Your task to perform on an android device: toggle notification dots Image 0: 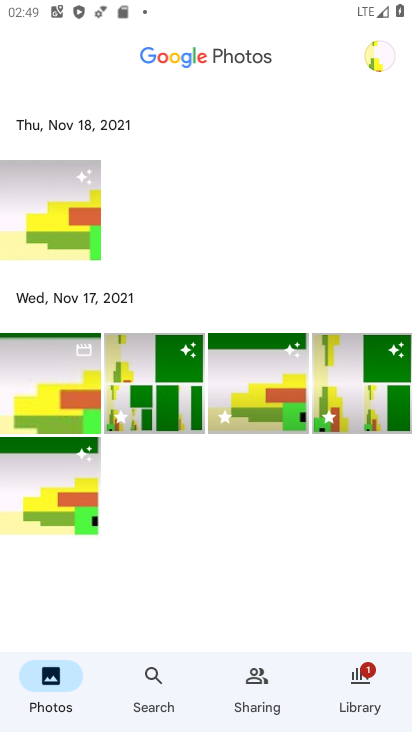
Step 0: press home button
Your task to perform on an android device: toggle notification dots Image 1: 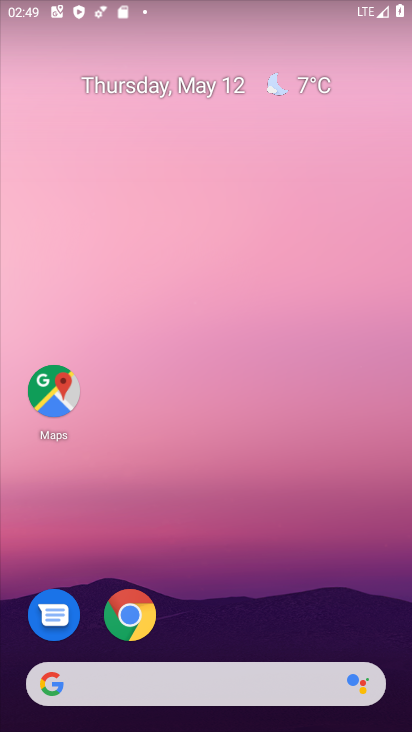
Step 1: drag from (255, 694) to (209, 397)
Your task to perform on an android device: toggle notification dots Image 2: 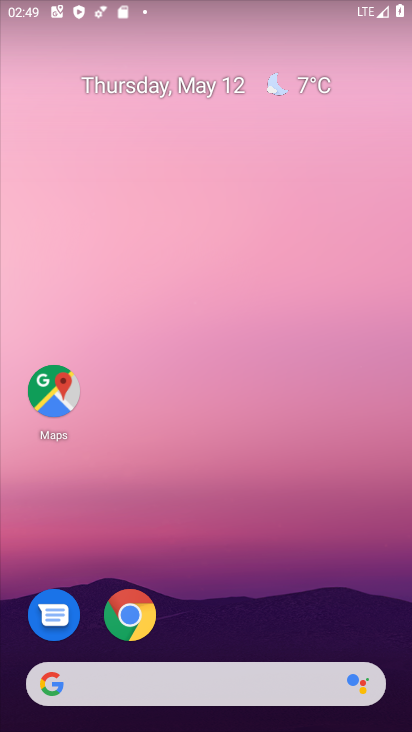
Step 2: drag from (224, 614) to (166, 239)
Your task to perform on an android device: toggle notification dots Image 3: 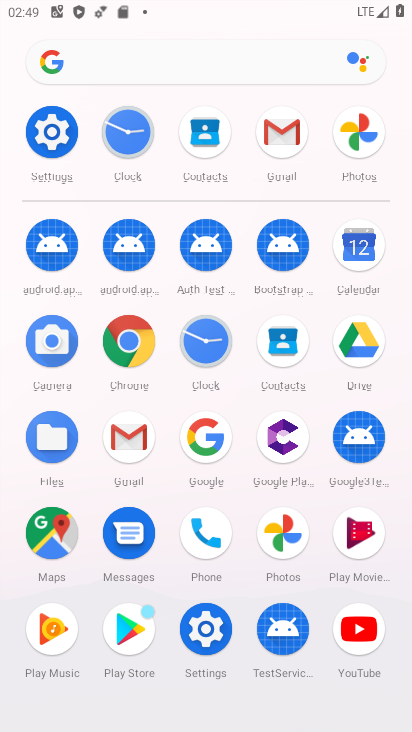
Step 3: click (45, 143)
Your task to perform on an android device: toggle notification dots Image 4: 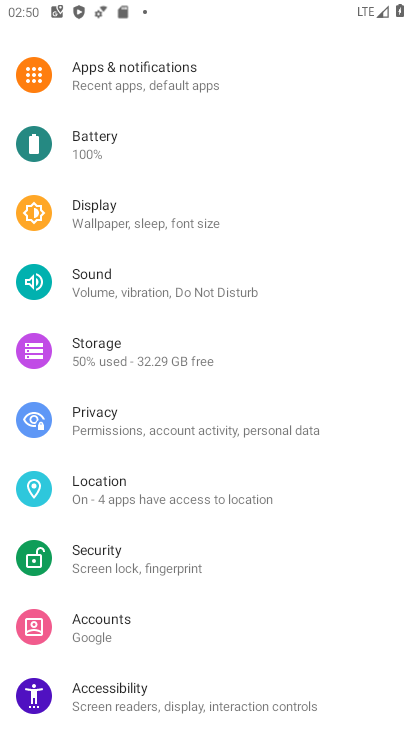
Step 4: click (92, 74)
Your task to perform on an android device: toggle notification dots Image 5: 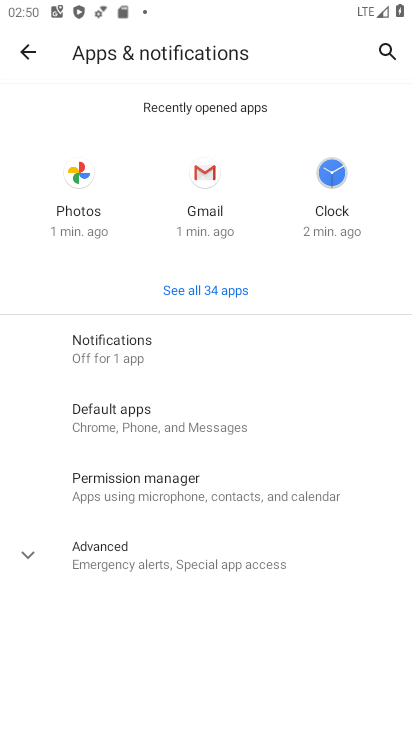
Step 5: click (138, 363)
Your task to perform on an android device: toggle notification dots Image 6: 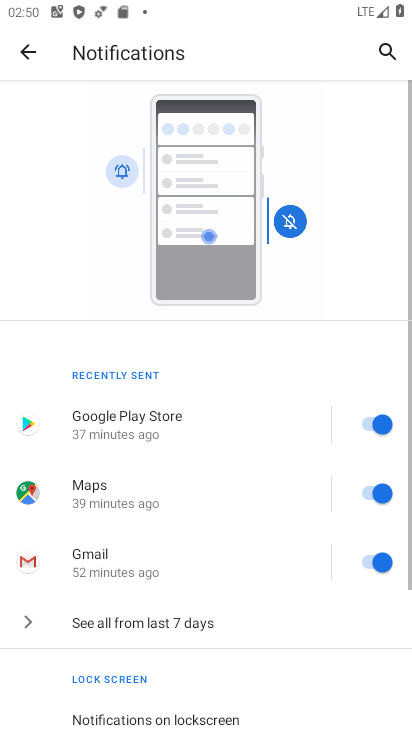
Step 6: drag from (140, 539) to (113, 124)
Your task to perform on an android device: toggle notification dots Image 7: 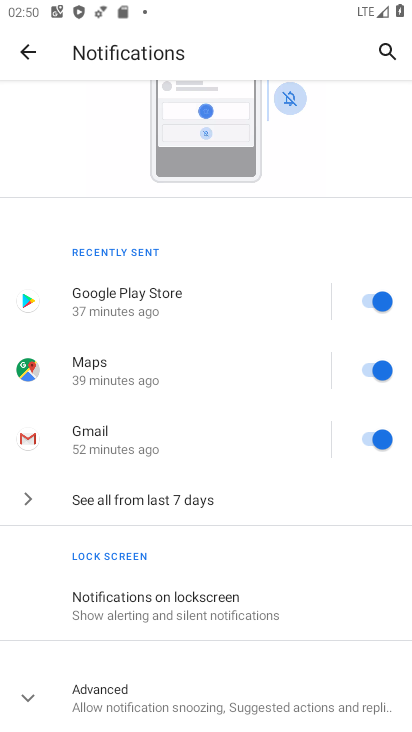
Step 7: click (130, 697)
Your task to perform on an android device: toggle notification dots Image 8: 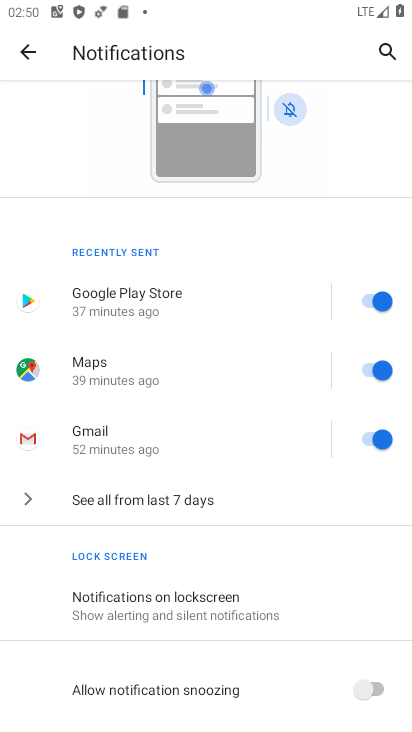
Step 8: drag from (165, 664) to (200, 438)
Your task to perform on an android device: toggle notification dots Image 9: 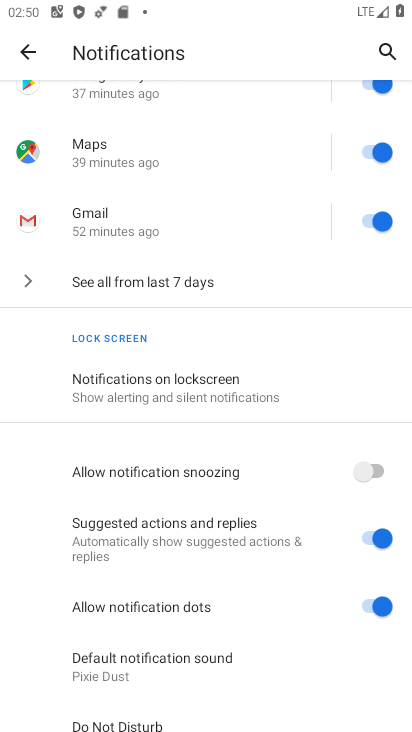
Step 9: click (375, 608)
Your task to perform on an android device: toggle notification dots Image 10: 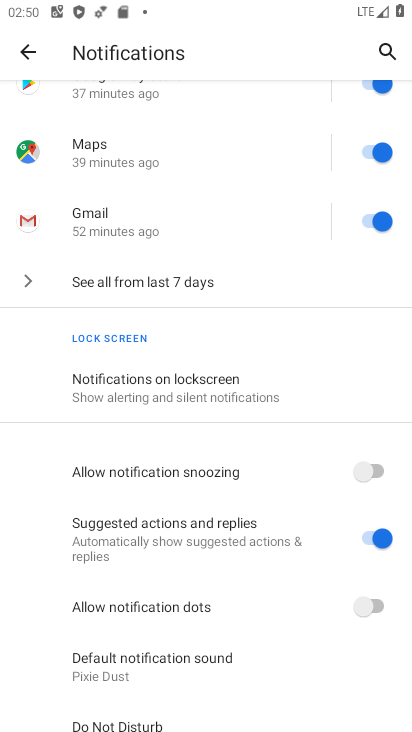
Step 10: task complete